Your task to perform on an android device: Is it going to rain today? Image 0: 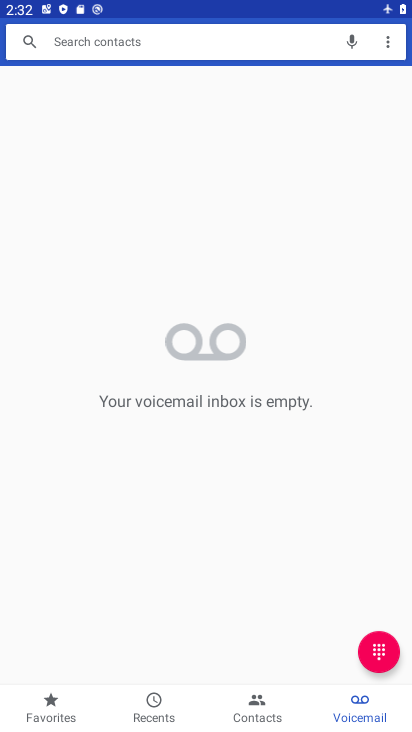
Step 0: press home button
Your task to perform on an android device: Is it going to rain today? Image 1: 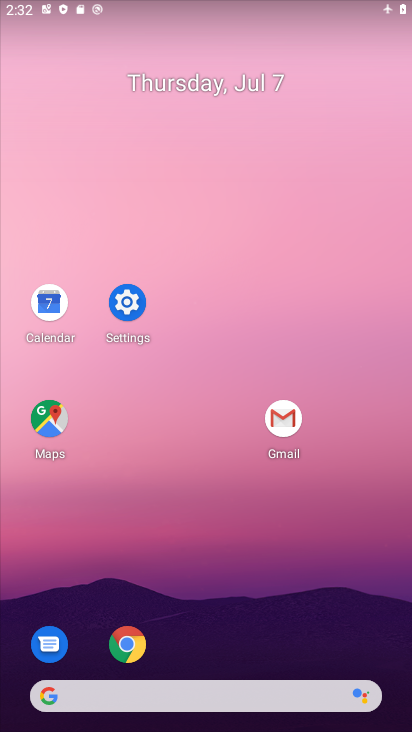
Step 1: drag from (386, 639) to (313, 41)
Your task to perform on an android device: Is it going to rain today? Image 2: 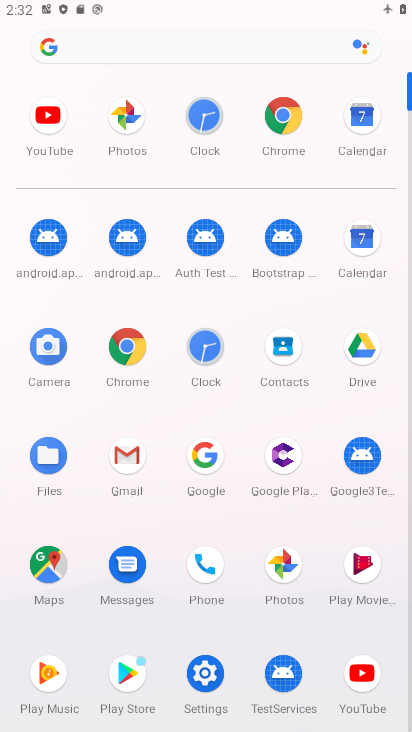
Step 2: press home button
Your task to perform on an android device: Is it going to rain today? Image 3: 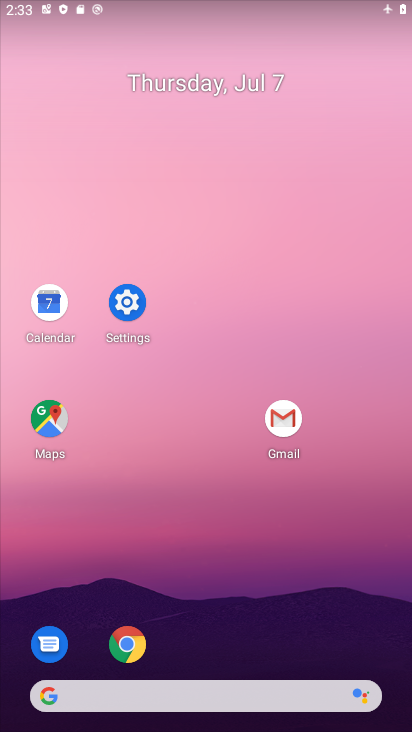
Step 3: drag from (58, 227) to (411, 182)
Your task to perform on an android device: Is it going to rain today? Image 4: 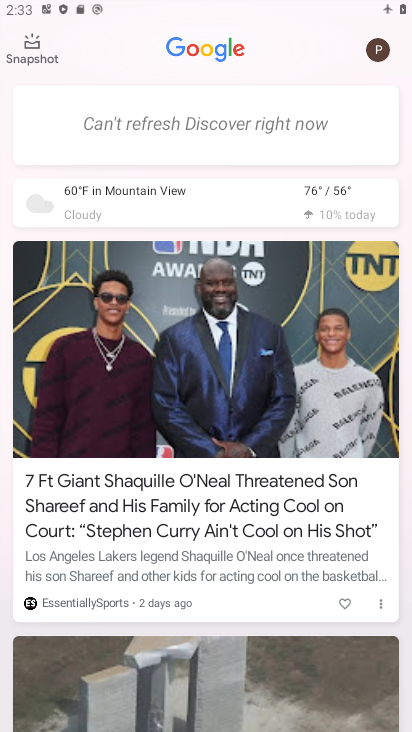
Step 4: click (321, 188)
Your task to perform on an android device: Is it going to rain today? Image 5: 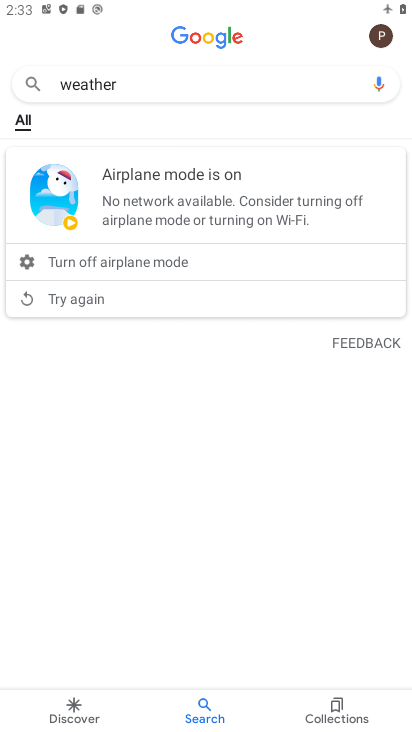
Step 5: press back button
Your task to perform on an android device: Is it going to rain today? Image 6: 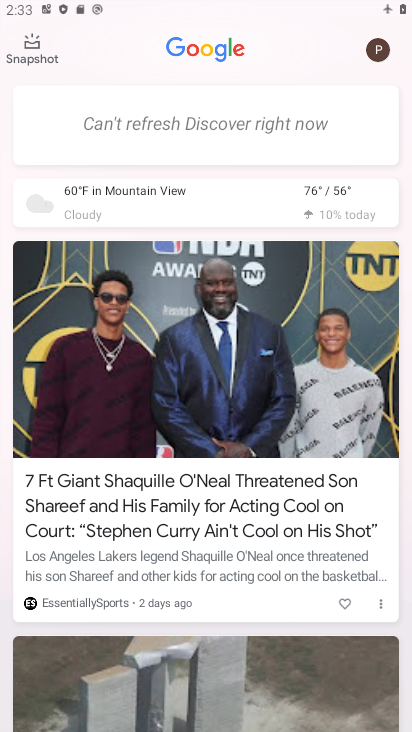
Step 6: click (127, 183)
Your task to perform on an android device: Is it going to rain today? Image 7: 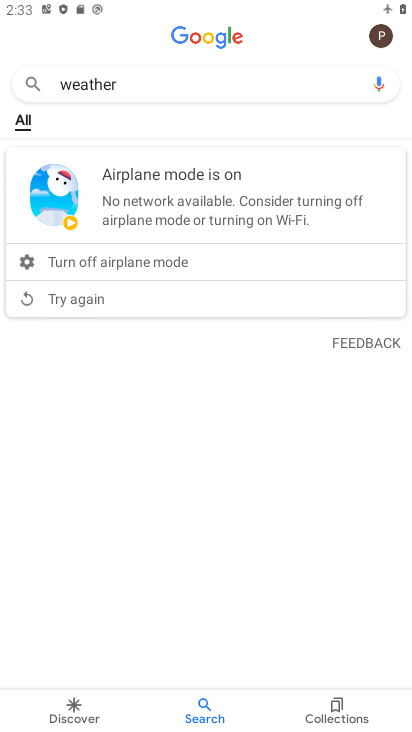
Step 7: task complete